Your task to perform on an android device: Open Chrome and go to settings Image 0: 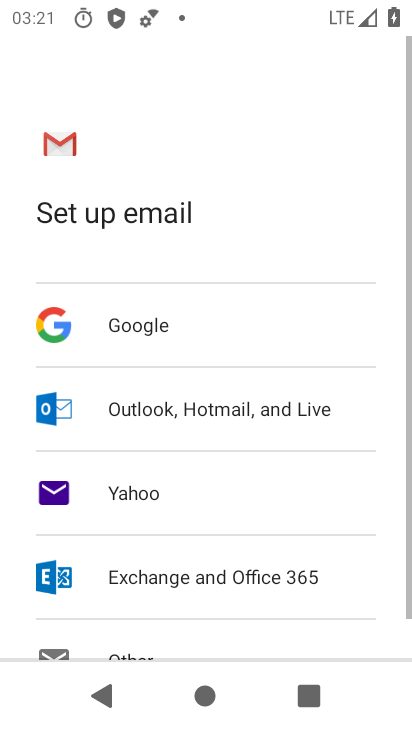
Step 0: press home button
Your task to perform on an android device: Open Chrome and go to settings Image 1: 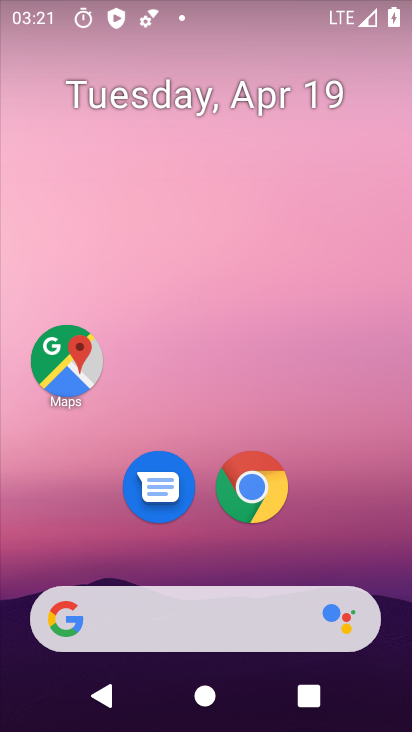
Step 1: click (260, 488)
Your task to perform on an android device: Open Chrome and go to settings Image 2: 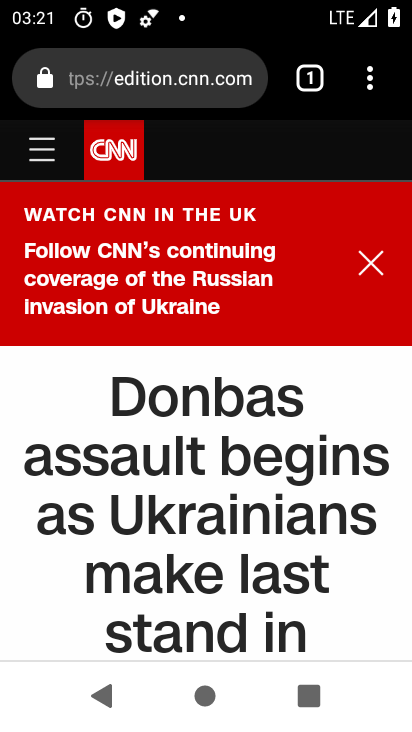
Step 2: task complete